Your task to perform on an android device: change text size in settings app Image 0: 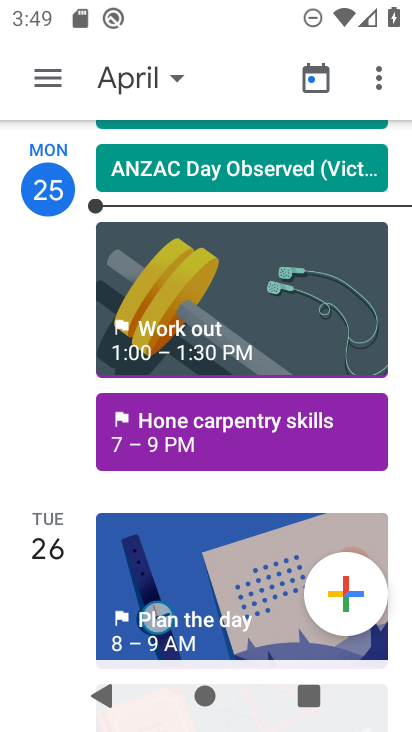
Step 0: press home button
Your task to perform on an android device: change text size in settings app Image 1: 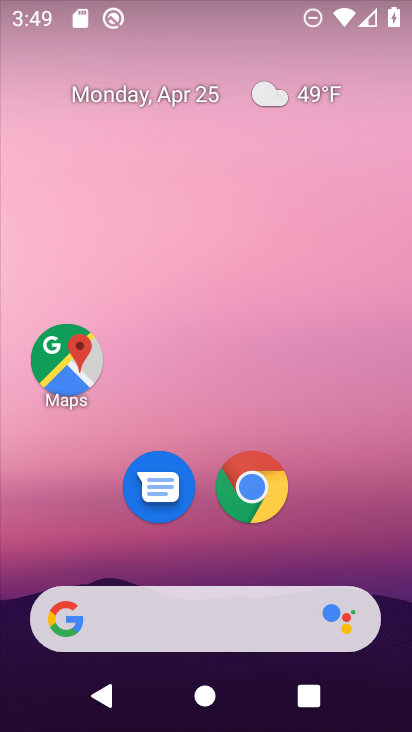
Step 1: drag from (394, 553) to (377, 4)
Your task to perform on an android device: change text size in settings app Image 2: 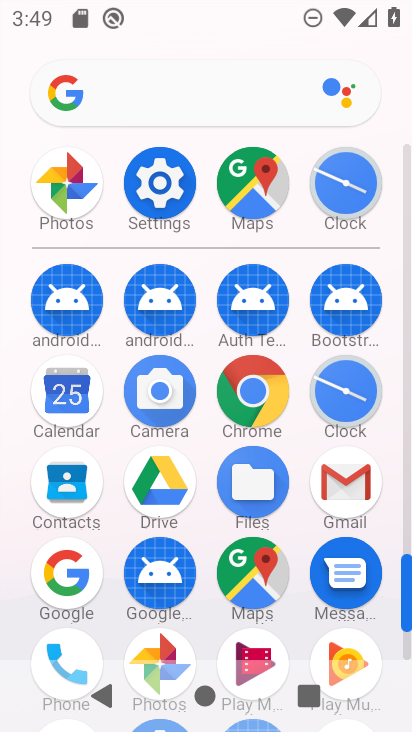
Step 2: click (157, 189)
Your task to perform on an android device: change text size in settings app Image 3: 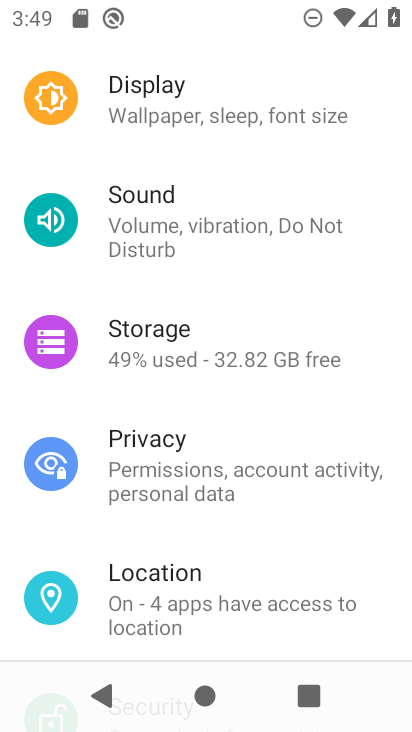
Step 3: click (157, 120)
Your task to perform on an android device: change text size in settings app Image 4: 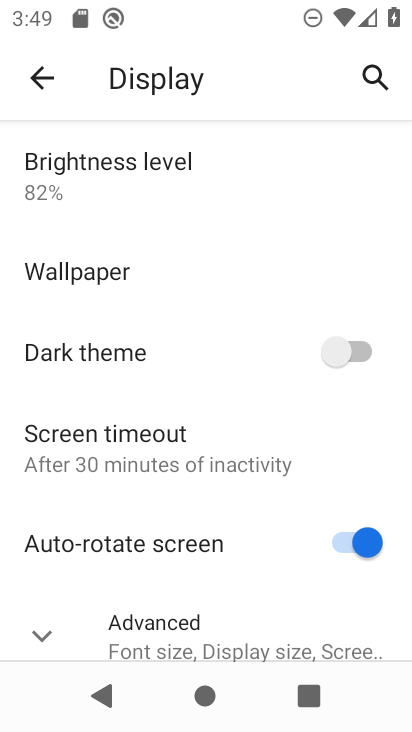
Step 4: click (48, 649)
Your task to perform on an android device: change text size in settings app Image 5: 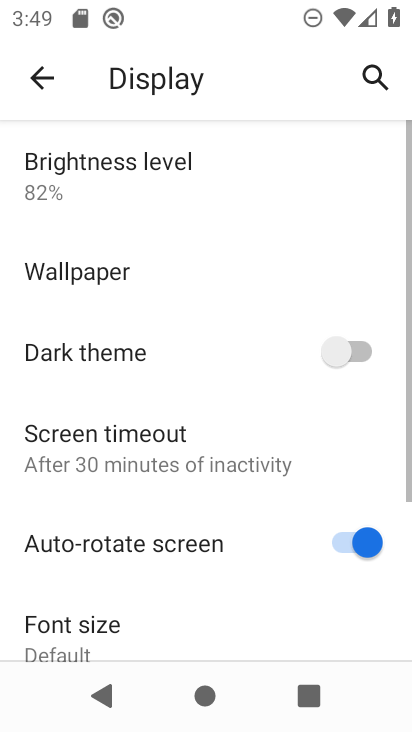
Step 5: drag from (146, 640) to (146, 246)
Your task to perform on an android device: change text size in settings app Image 6: 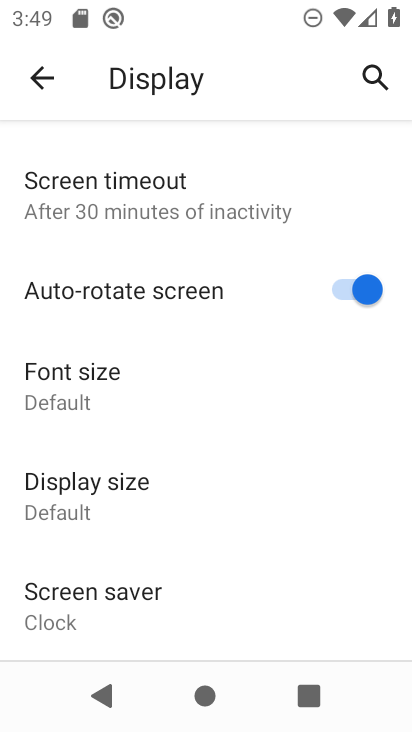
Step 6: click (63, 388)
Your task to perform on an android device: change text size in settings app Image 7: 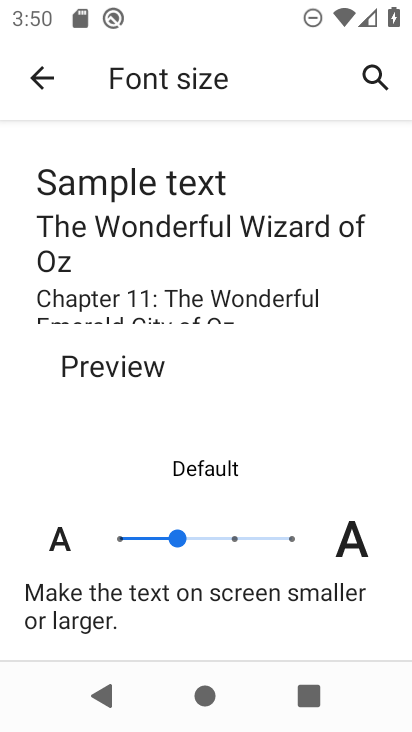
Step 7: click (232, 542)
Your task to perform on an android device: change text size in settings app Image 8: 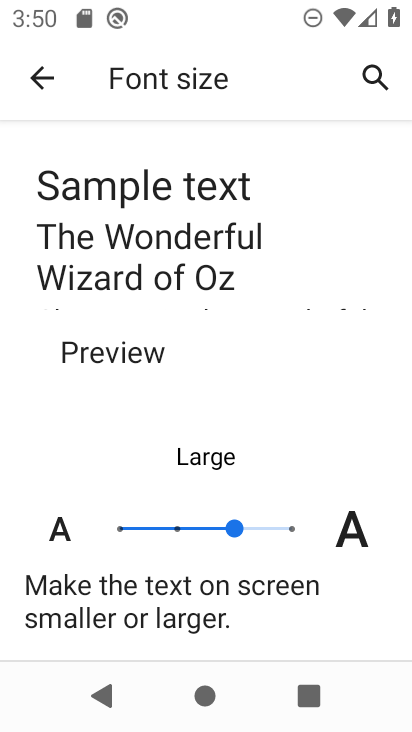
Step 8: task complete